Your task to perform on an android device: Play the last video I watched on Youtube Image 0: 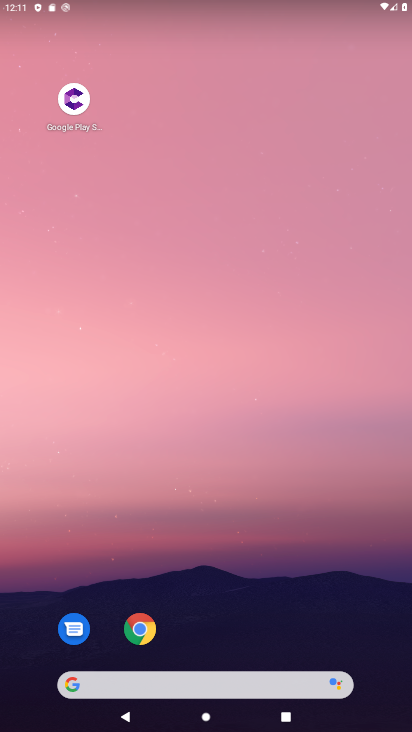
Step 0: drag from (214, 659) to (243, 25)
Your task to perform on an android device: Play the last video I watched on Youtube Image 1: 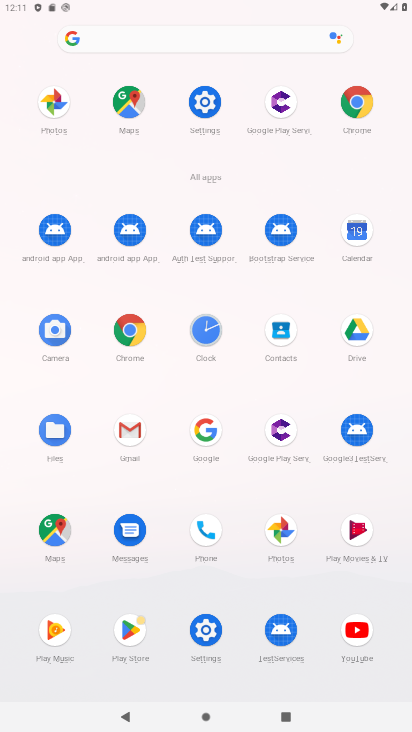
Step 1: click (354, 630)
Your task to perform on an android device: Play the last video I watched on Youtube Image 2: 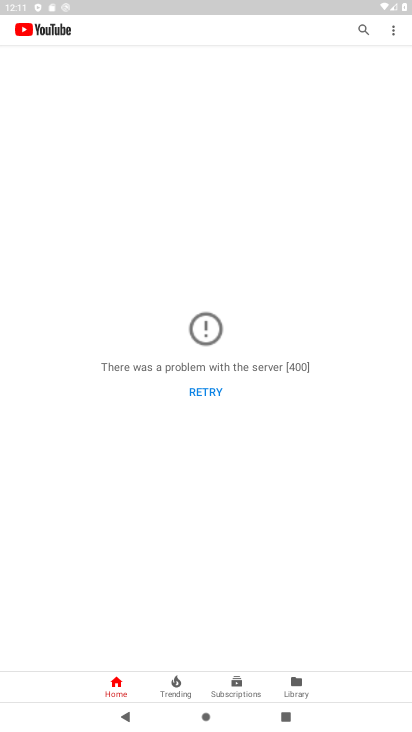
Step 2: click (291, 689)
Your task to perform on an android device: Play the last video I watched on Youtube Image 3: 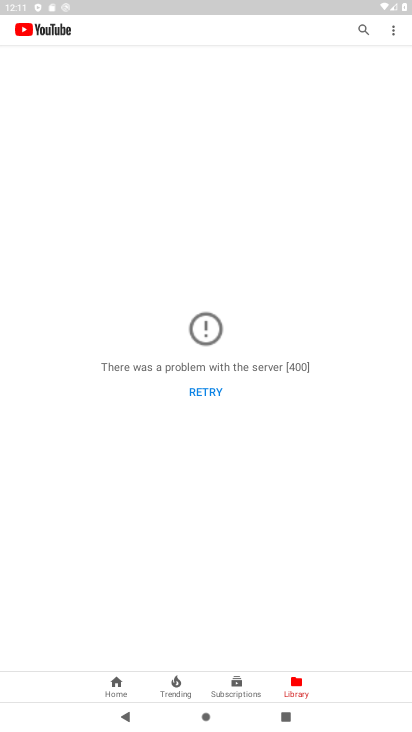
Step 3: task complete